Your task to perform on an android device: Open ESPN.com Image 0: 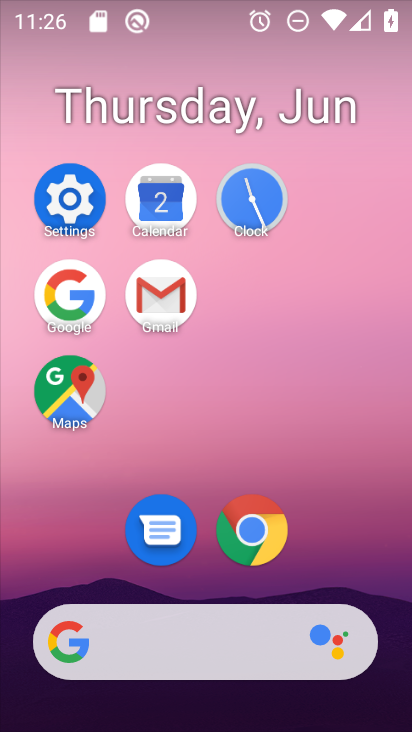
Step 0: drag from (332, 533) to (343, 130)
Your task to perform on an android device: Open ESPN.com Image 1: 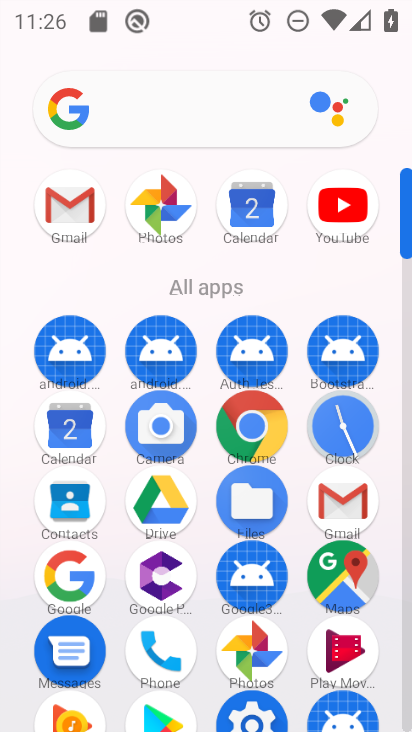
Step 1: drag from (235, 580) to (274, 219)
Your task to perform on an android device: Open ESPN.com Image 2: 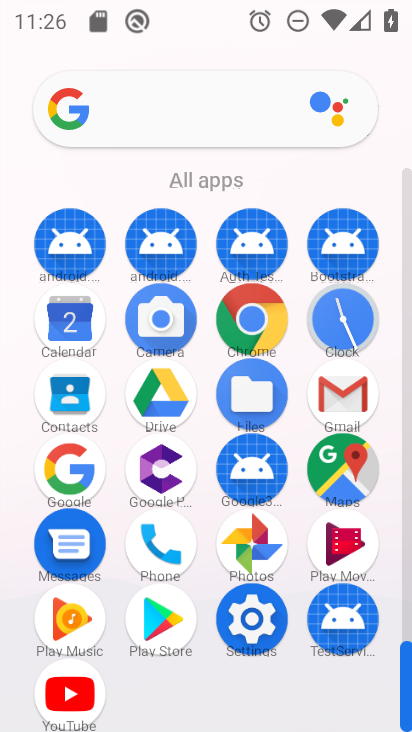
Step 2: click (243, 312)
Your task to perform on an android device: Open ESPN.com Image 3: 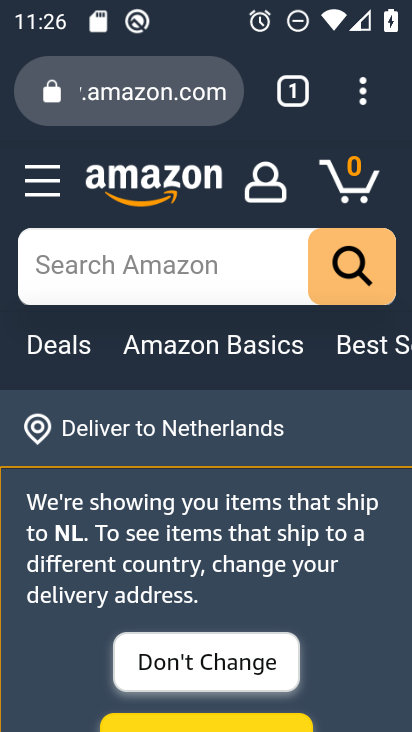
Step 3: click (314, 65)
Your task to perform on an android device: Open ESPN.com Image 4: 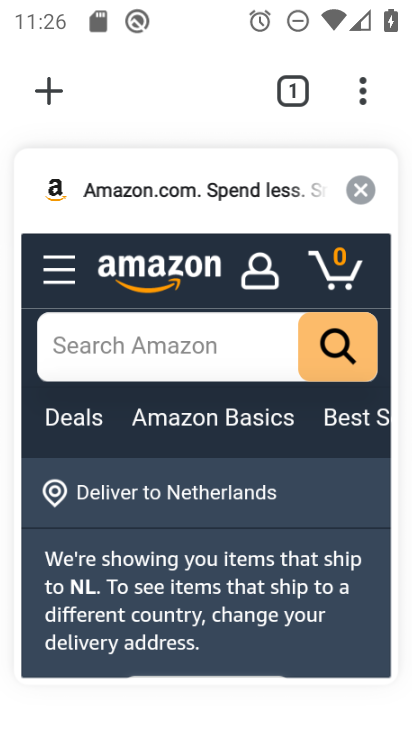
Step 4: click (54, 94)
Your task to perform on an android device: Open ESPN.com Image 5: 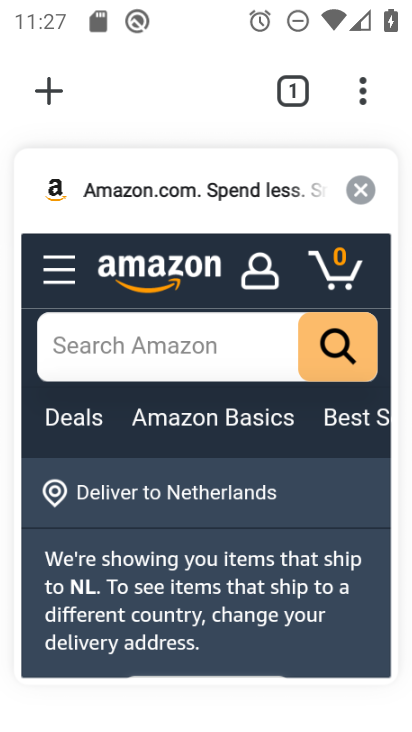
Step 5: click (60, 100)
Your task to perform on an android device: Open ESPN.com Image 6: 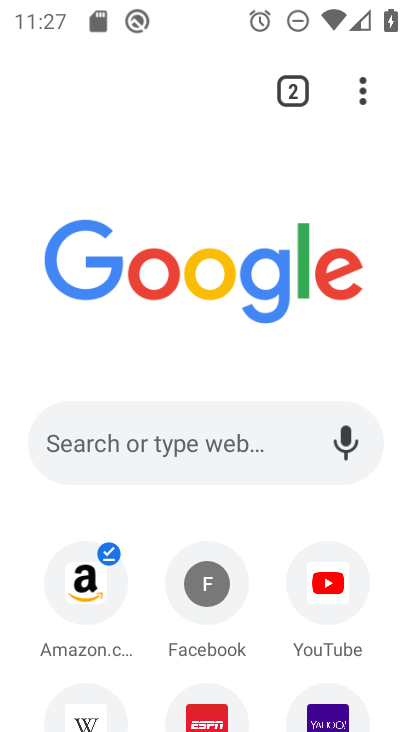
Step 6: click (220, 721)
Your task to perform on an android device: Open ESPN.com Image 7: 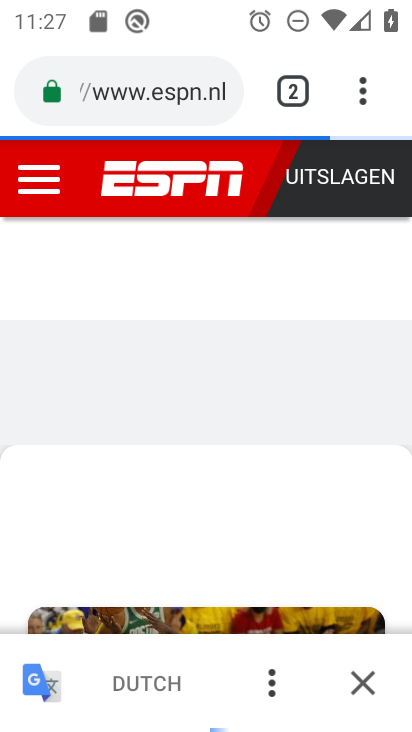
Step 7: task complete